Your task to perform on an android device: turn off location Image 0: 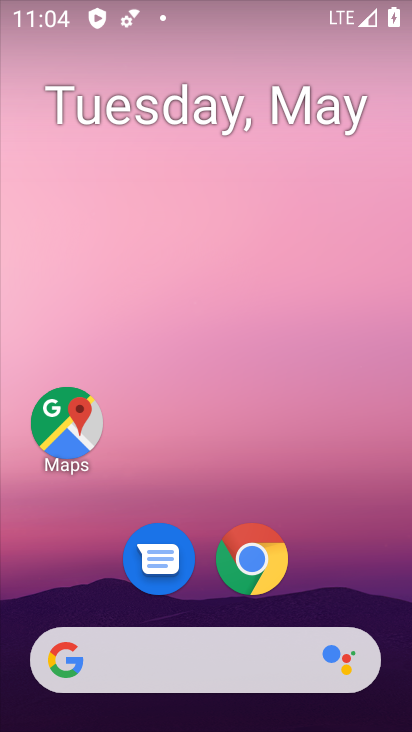
Step 0: drag from (391, 619) to (322, 138)
Your task to perform on an android device: turn off location Image 1: 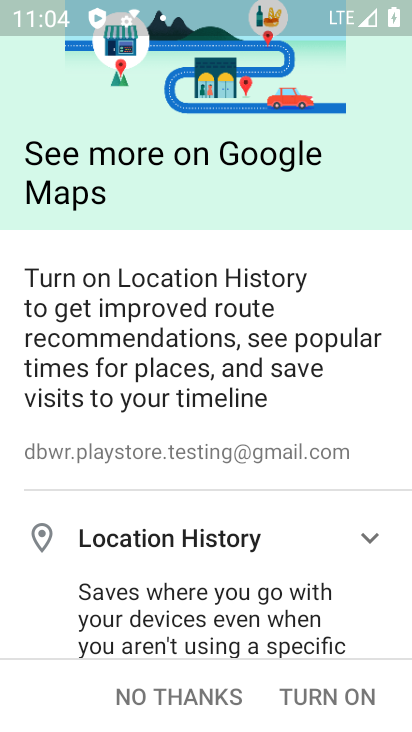
Step 1: click (205, 708)
Your task to perform on an android device: turn off location Image 2: 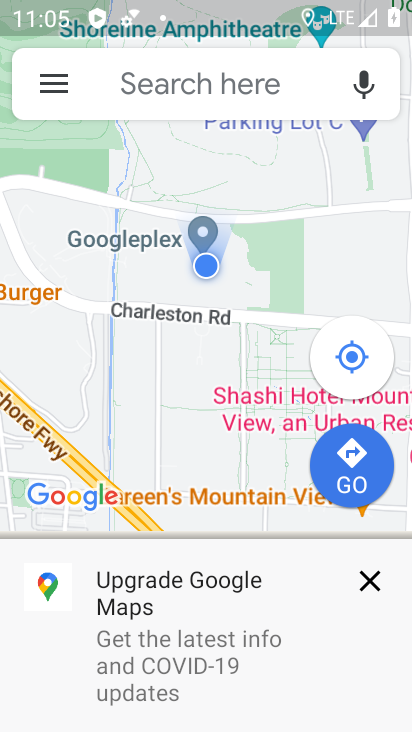
Step 2: task complete